Your task to perform on an android device: toggle data saver in the chrome app Image 0: 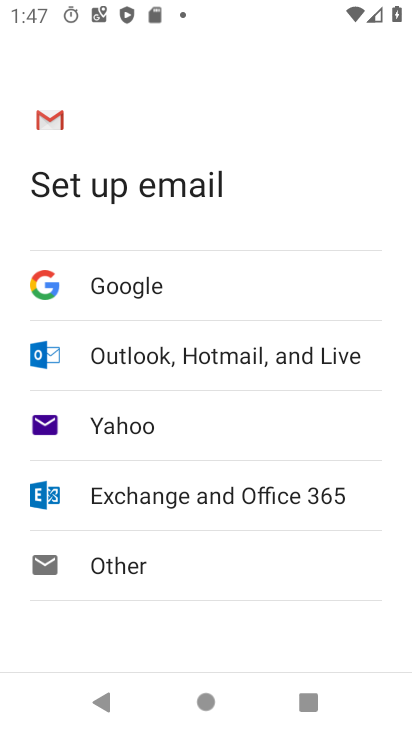
Step 0: press home button
Your task to perform on an android device: toggle data saver in the chrome app Image 1: 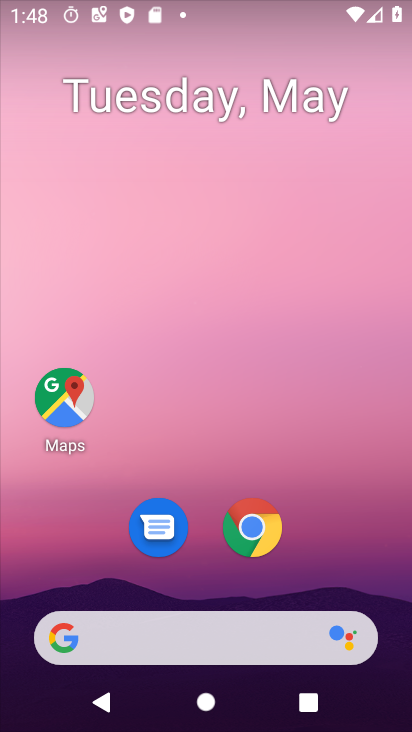
Step 1: drag from (301, 654) to (290, 205)
Your task to perform on an android device: toggle data saver in the chrome app Image 2: 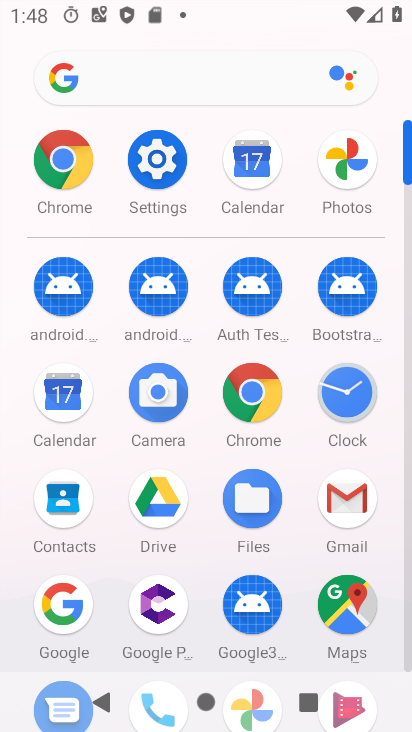
Step 2: click (86, 155)
Your task to perform on an android device: toggle data saver in the chrome app Image 3: 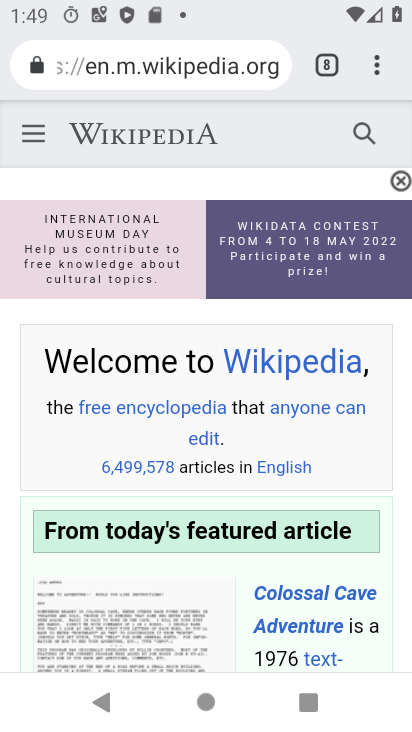
Step 3: click (367, 83)
Your task to perform on an android device: toggle data saver in the chrome app Image 4: 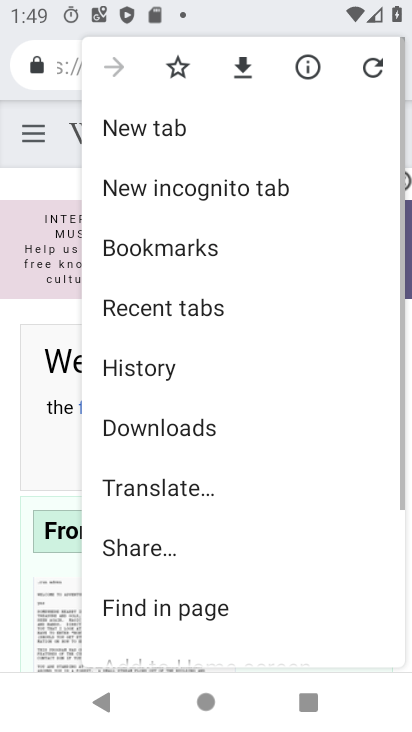
Step 4: drag from (253, 546) to (235, 350)
Your task to perform on an android device: toggle data saver in the chrome app Image 5: 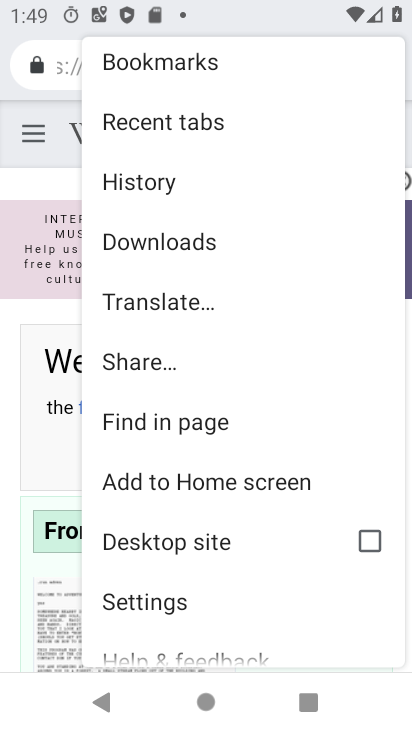
Step 5: click (191, 599)
Your task to perform on an android device: toggle data saver in the chrome app Image 6: 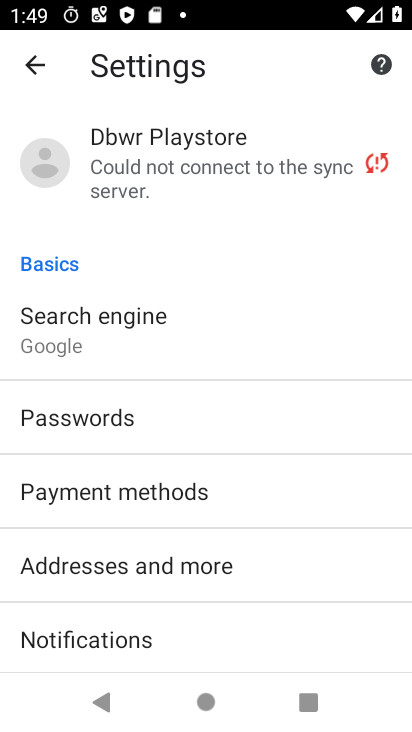
Step 6: drag from (139, 561) to (128, 374)
Your task to perform on an android device: toggle data saver in the chrome app Image 7: 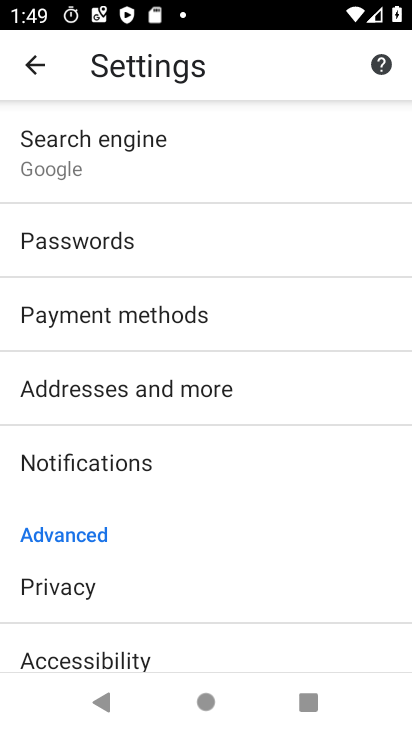
Step 7: drag from (146, 592) to (142, 513)
Your task to perform on an android device: toggle data saver in the chrome app Image 8: 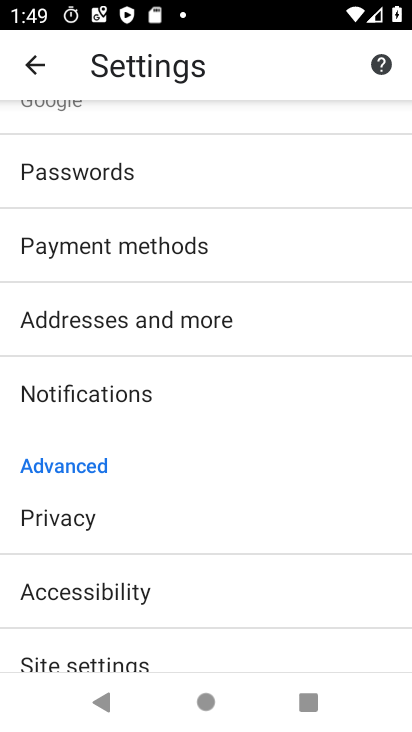
Step 8: drag from (142, 609) to (128, 432)
Your task to perform on an android device: toggle data saver in the chrome app Image 9: 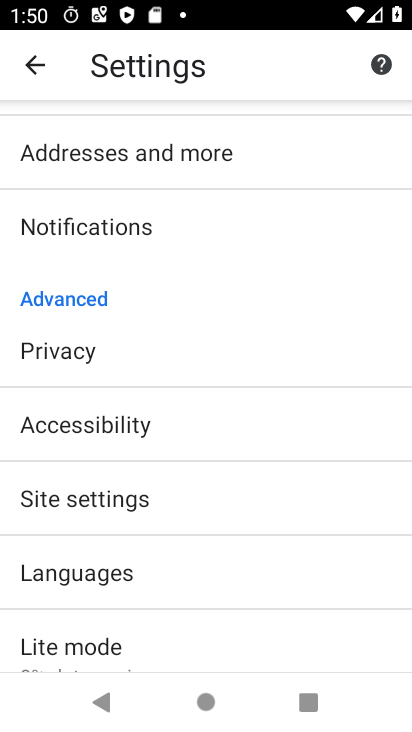
Step 9: click (154, 631)
Your task to perform on an android device: toggle data saver in the chrome app Image 10: 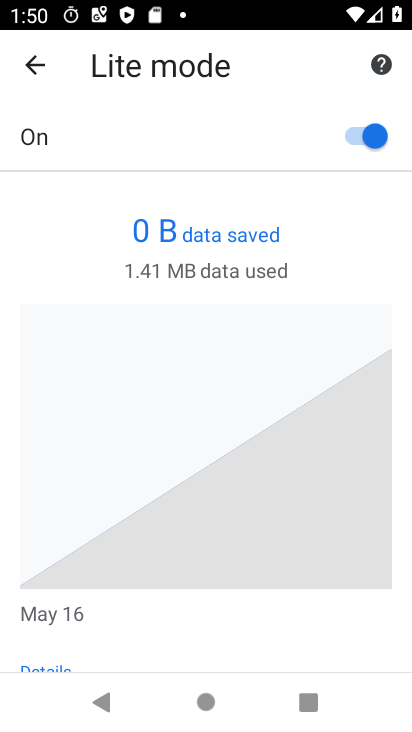
Step 10: task complete